Your task to perform on an android device: create a new album in the google photos Image 0: 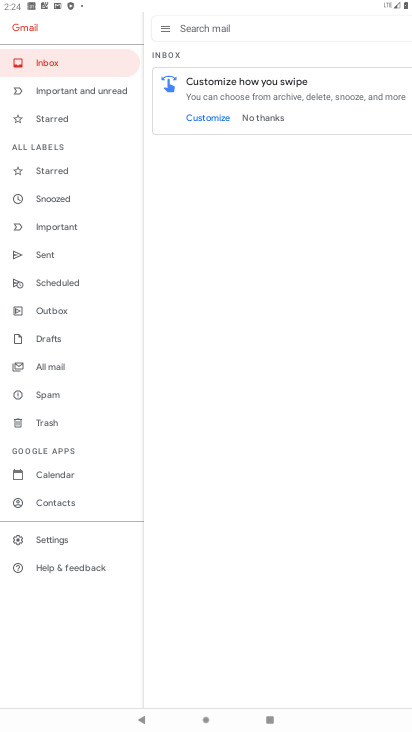
Step 0: press home button
Your task to perform on an android device: create a new album in the google photos Image 1: 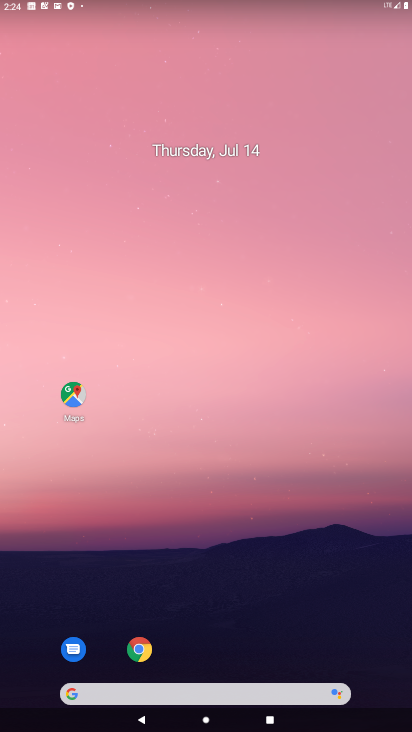
Step 1: drag from (373, 666) to (216, 29)
Your task to perform on an android device: create a new album in the google photos Image 2: 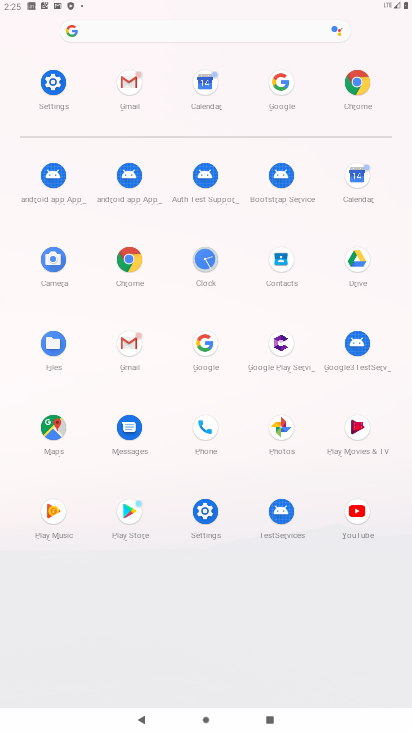
Step 2: click (260, 399)
Your task to perform on an android device: create a new album in the google photos Image 3: 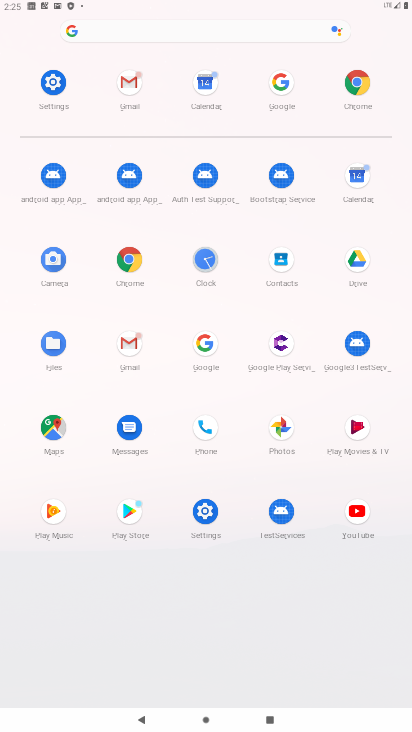
Step 3: click (286, 419)
Your task to perform on an android device: create a new album in the google photos Image 4: 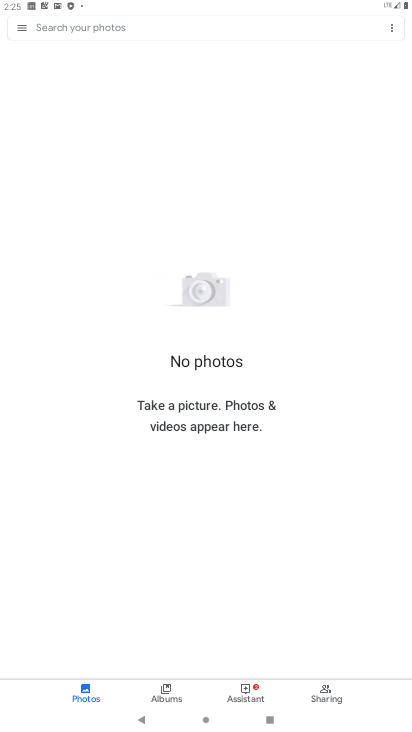
Step 4: task complete